Your task to perform on an android device: Open Google Chrome and open the bookmarks view Image 0: 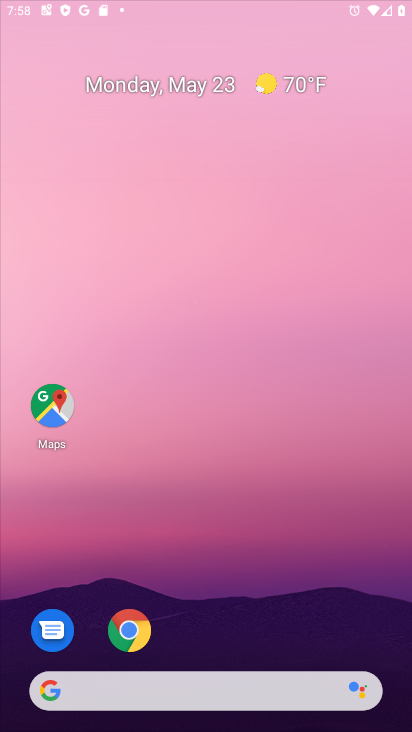
Step 0: drag from (241, 599) to (305, 271)
Your task to perform on an android device: Open Google Chrome and open the bookmarks view Image 1: 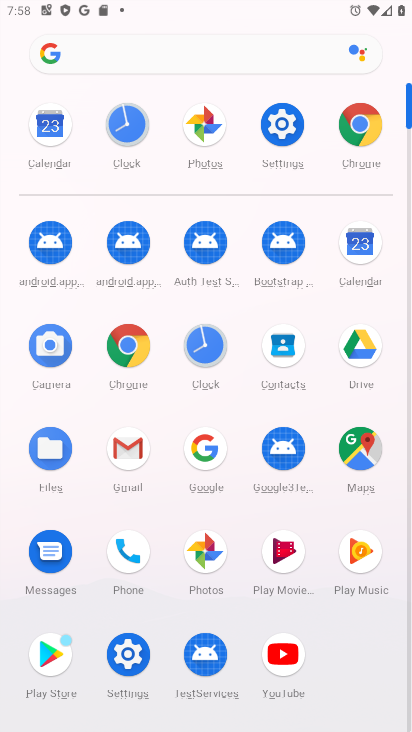
Step 1: click (358, 137)
Your task to perform on an android device: Open Google Chrome and open the bookmarks view Image 2: 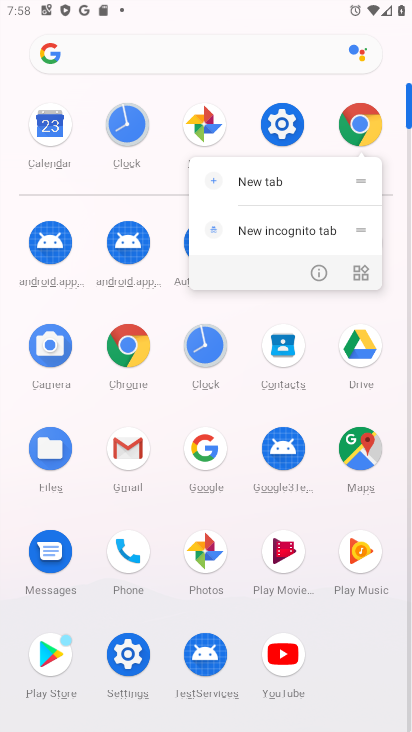
Step 2: click (360, 133)
Your task to perform on an android device: Open Google Chrome and open the bookmarks view Image 3: 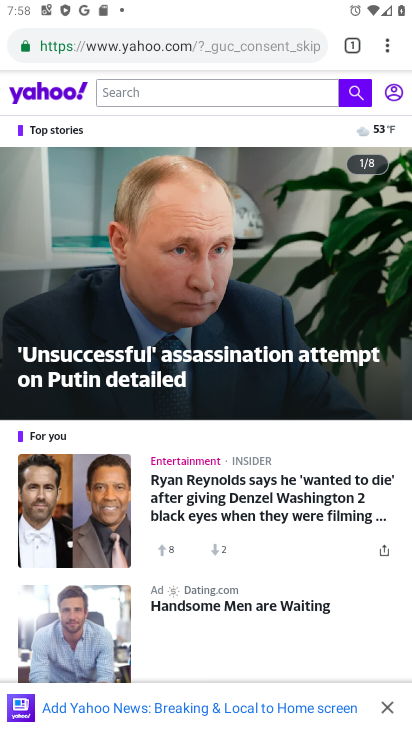
Step 3: task complete